Your task to perform on an android device: Open accessibility settings Image 0: 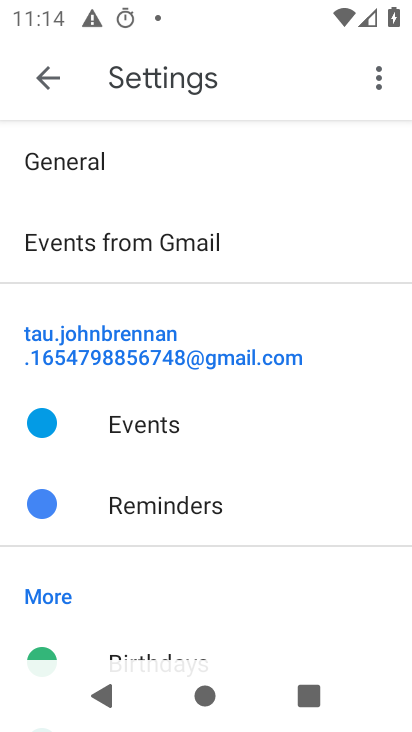
Step 0: press back button
Your task to perform on an android device: Open accessibility settings Image 1: 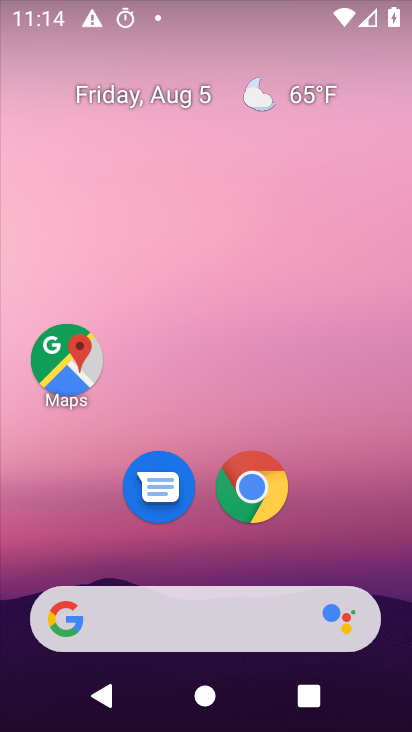
Step 1: drag from (210, 561) to (334, 34)
Your task to perform on an android device: Open accessibility settings Image 2: 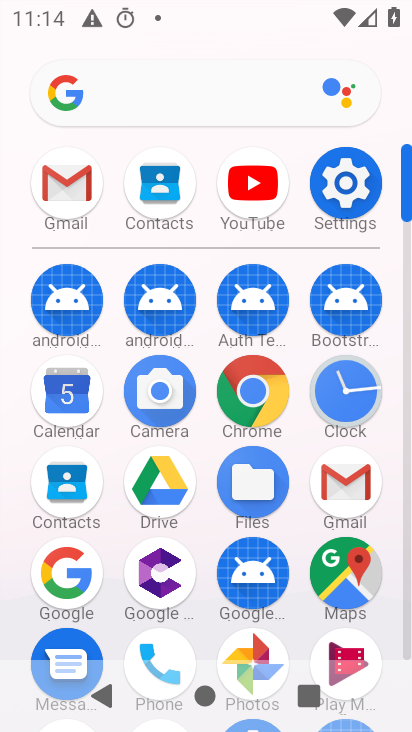
Step 2: click (354, 186)
Your task to perform on an android device: Open accessibility settings Image 3: 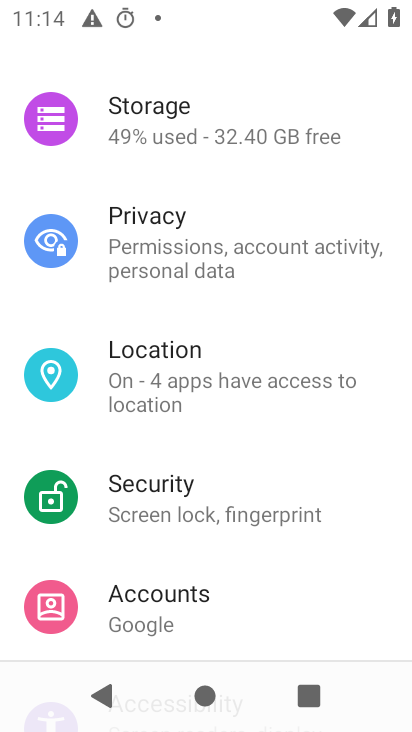
Step 3: drag from (181, 613) to (265, 152)
Your task to perform on an android device: Open accessibility settings Image 4: 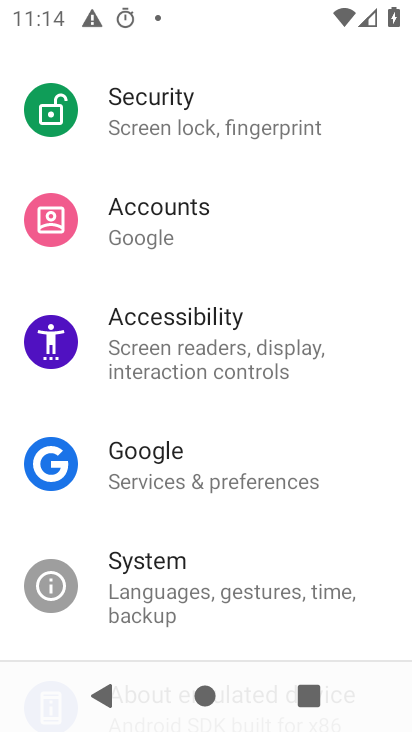
Step 4: click (231, 339)
Your task to perform on an android device: Open accessibility settings Image 5: 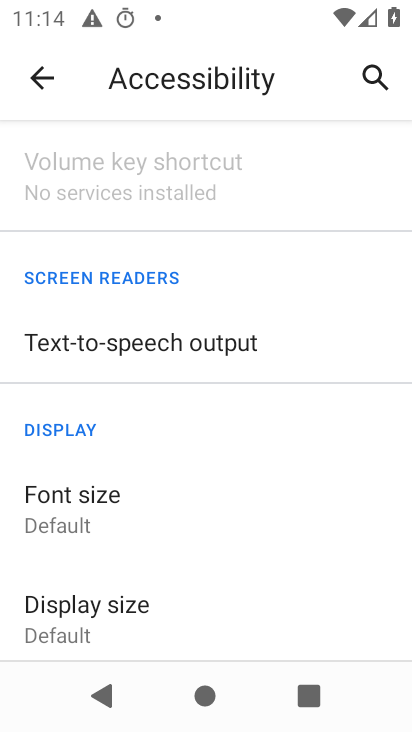
Step 5: task complete